Your task to perform on an android device: Is it going to rain today? Image 0: 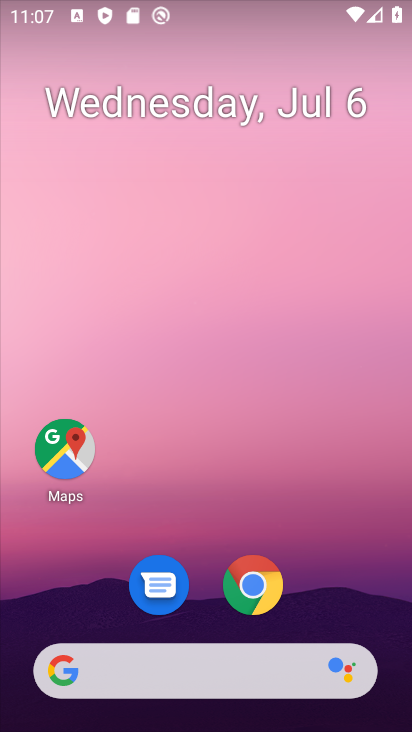
Step 0: click (149, 672)
Your task to perform on an android device: Is it going to rain today? Image 1: 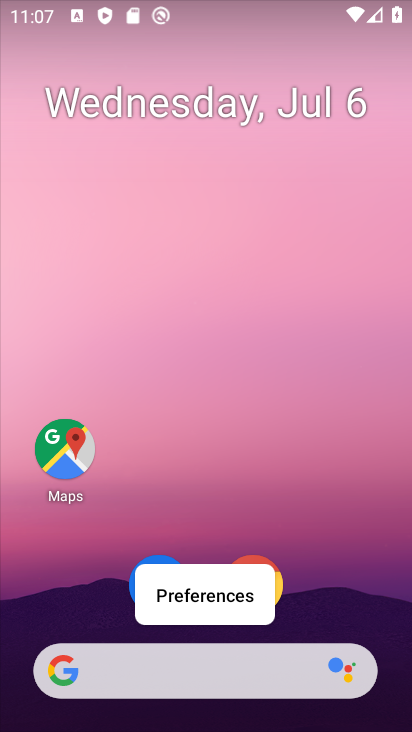
Step 1: click (149, 670)
Your task to perform on an android device: Is it going to rain today? Image 2: 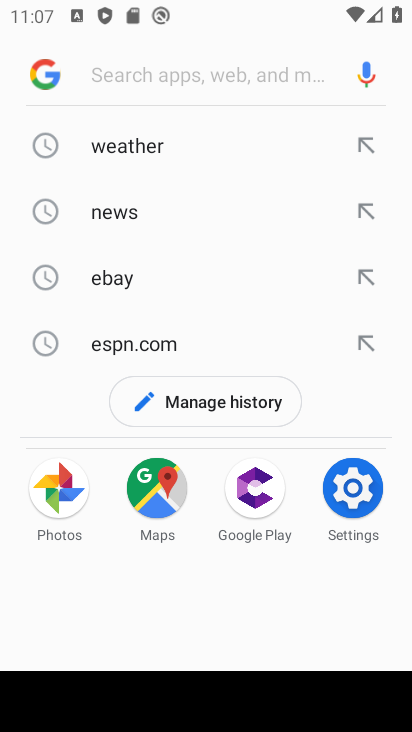
Step 2: click (149, 141)
Your task to perform on an android device: Is it going to rain today? Image 3: 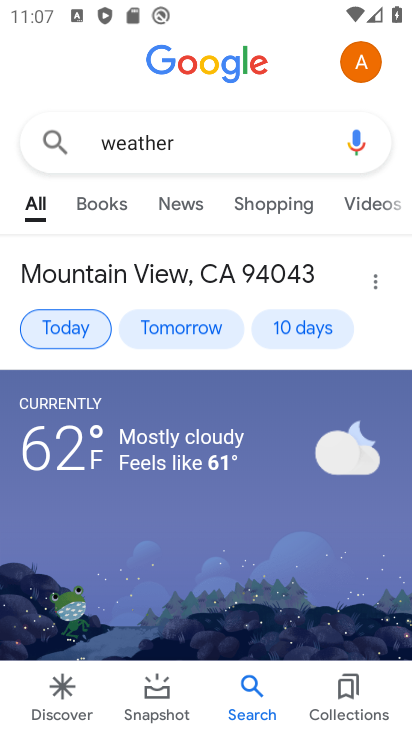
Step 3: click (90, 319)
Your task to perform on an android device: Is it going to rain today? Image 4: 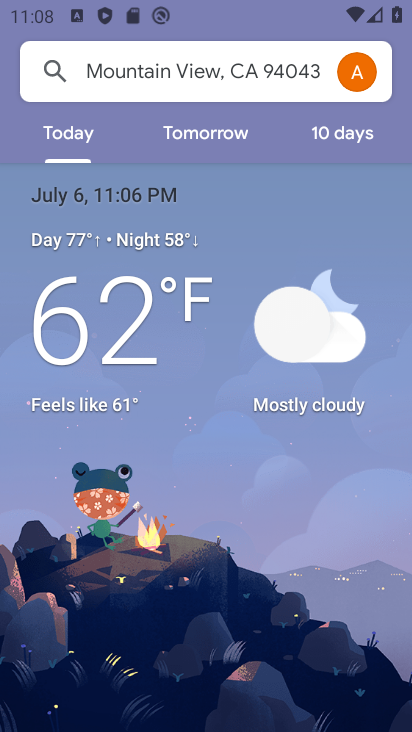
Step 4: task complete